Your task to perform on an android device: visit the assistant section in the google photos Image 0: 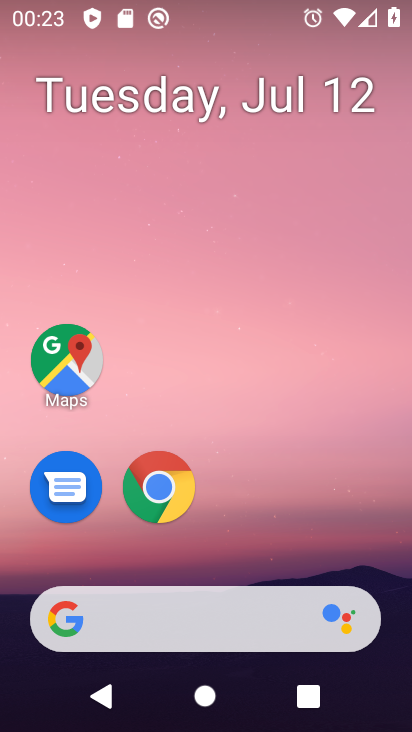
Step 0: drag from (337, 524) to (342, 353)
Your task to perform on an android device: visit the assistant section in the google photos Image 1: 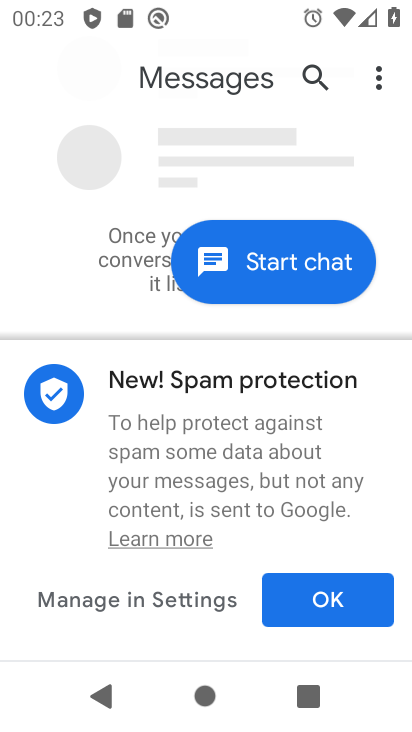
Step 1: press home button
Your task to perform on an android device: visit the assistant section in the google photos Image 2: 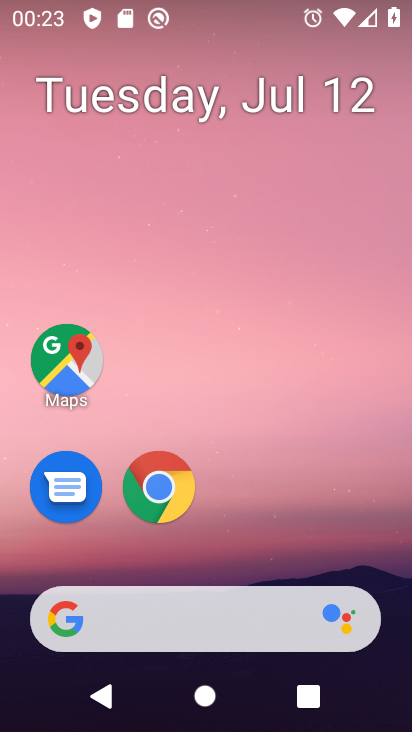
Step 2: drag from (351, 519) to (337, 135)
Your task to perform on an android device: visit the assistant section in the google photos Image 3: 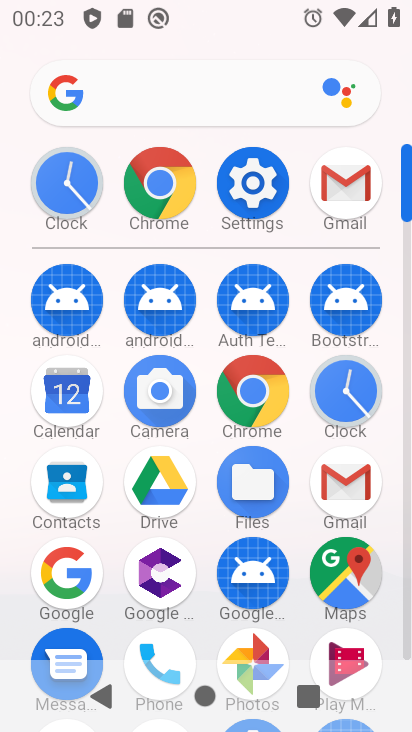
Step 3: drag from (385, 611) to (395, 388)
Your task to perform on an android device: visit the assistant section in the google photos Image 4: 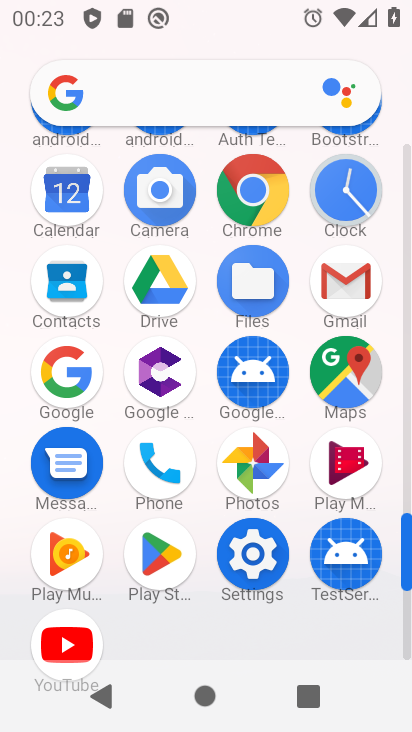
Step 4: click (247, 463)
Your task to perform on an android device: visit the assistant section in the google photos Image 5: 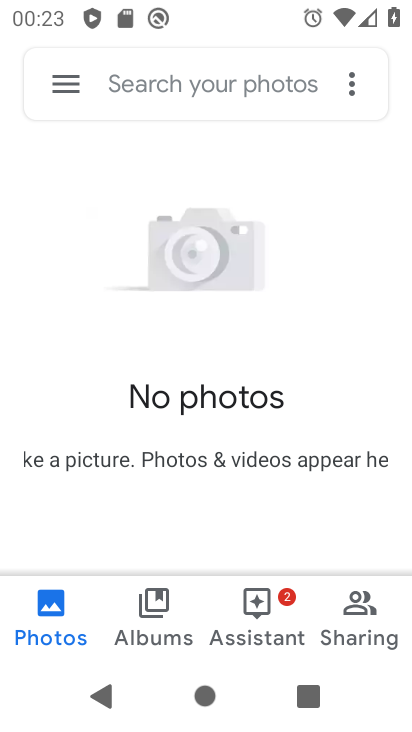
Step 5: click (262, 616)
Your task to perform on an android device: visit the assistant section in the google photos Image 6: 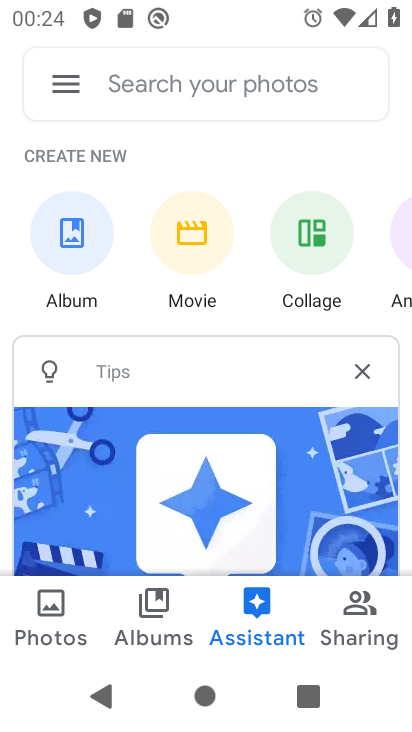
Step 6: task complete